Your task to perform on an android device: turn off wifi Image 0: 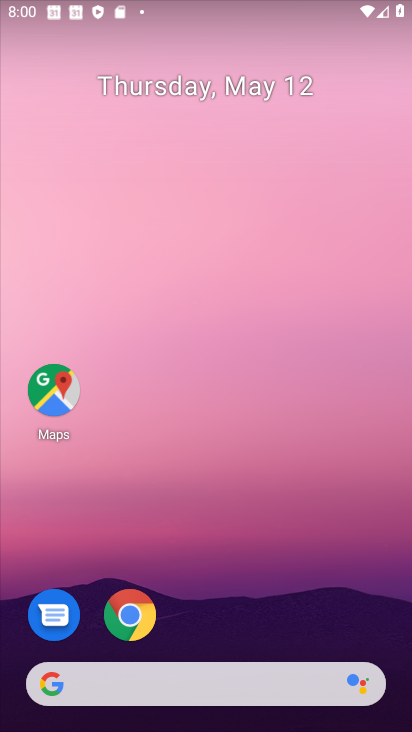
Step 0: drag from (264, 570) to (249, 19)
Your task to perform on an android device: turn off wifi Image 1: 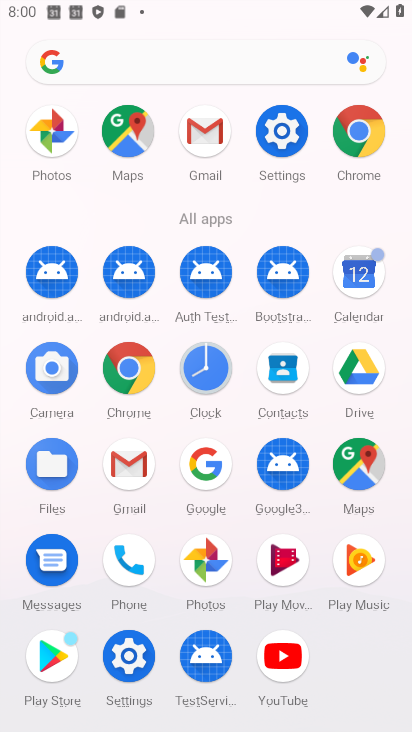
Step 1: click (282, 129)
Your task to perform on an android device: turn off wifi Image 2: 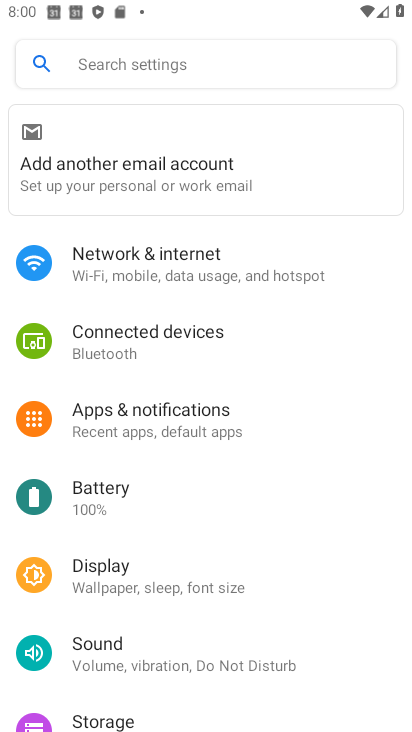
Step 2: click (216, 272)
Your task to perform on an android device: turn off wifi Image 3: 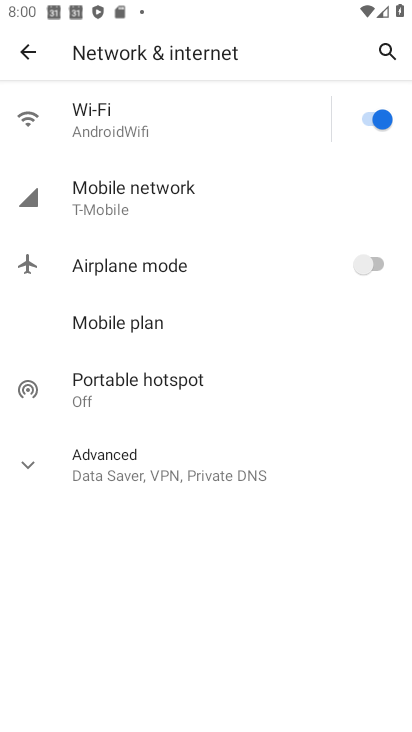
Step 3: click (359, 118)
Your task to perform on an android device: turn off wifi Image 4: 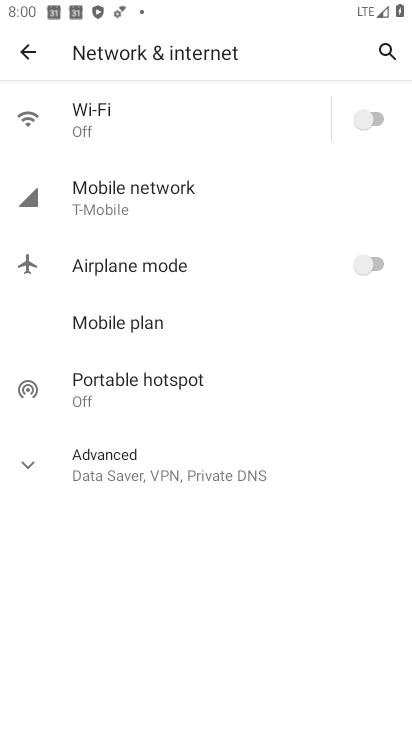
Step 4: task complete